Your task to perform on an android device: install app "Indeed Job Search" Image 0: 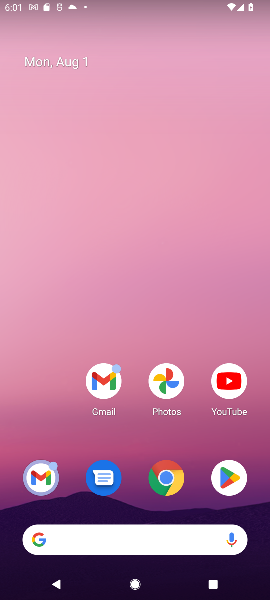
Step 0: press back button
Your task to perform on an android device: install app "Indeed Job Search" Image 1: 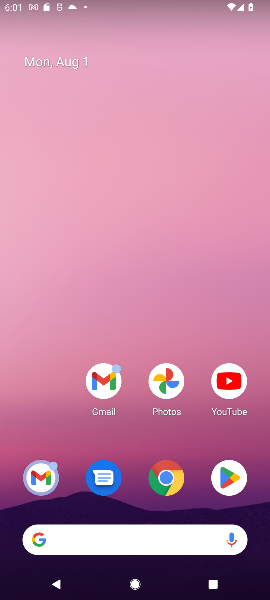
Step 1: click (232, 487)
Your task to perform on an android device: install app "Indeed Job Search" Image 2: 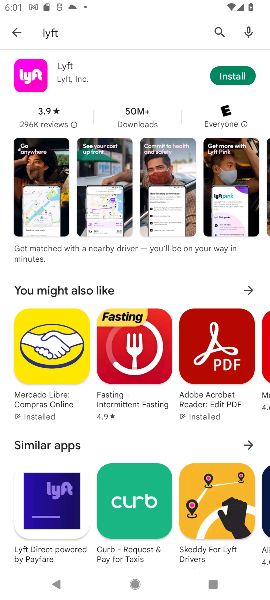
Step 2: click (216, 30)
Your task to perform on an android device: install app "Indeed Job Search" Image 3: 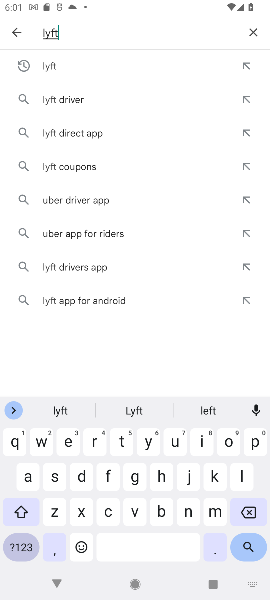
Step 3: click (247, 32)
Your task to perform on an android device: install app "Indeed Job Search" Image 4: 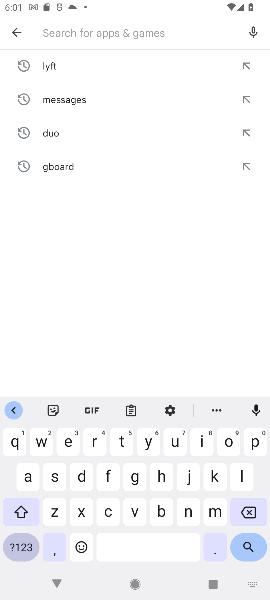
Step 4: click (191, 435)
Your task to perform on an android device: install app "Indeed Job Search" Image 5: 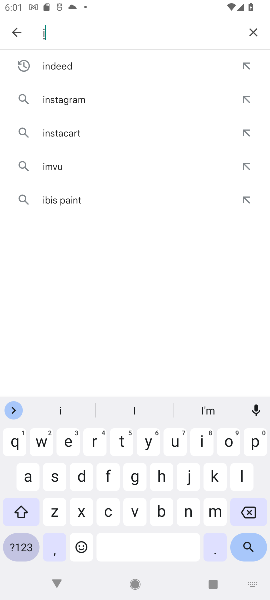
Step 5: click (54, 70)
Your task to perform on an android device: install app "Indeed Job Search" Image 6: 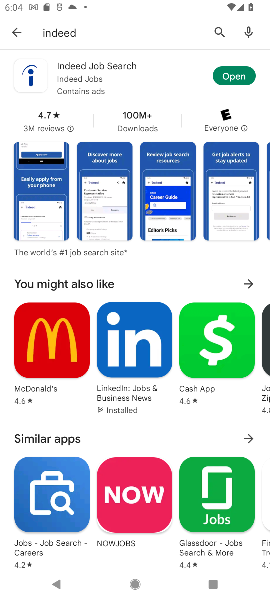
Step 6: task complete